Your task to perform on an android device: Open battery settings Image 0: 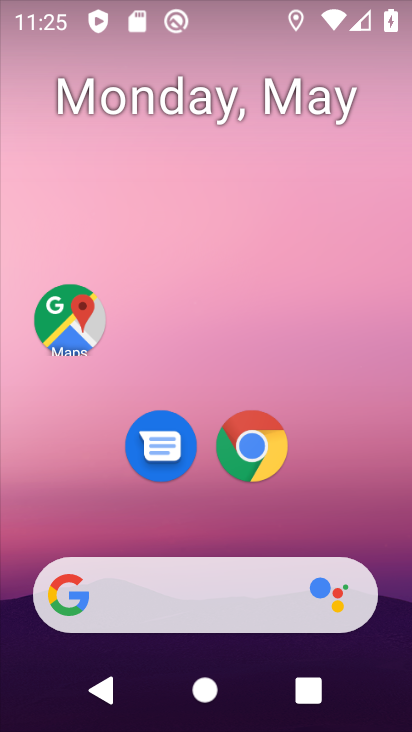
Step 0: drag from (295, 493) to (147, 46)
Your task to perform on an android device: Open battery settings Image 1: 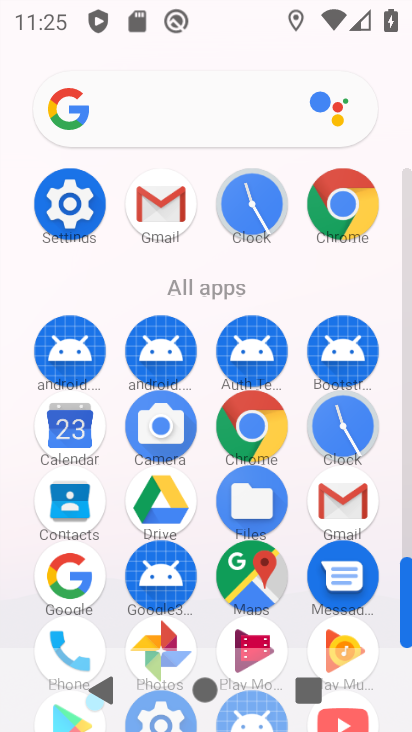
Step 1: click (63, 206)
Your task to perform on an android device: Open battery settings Image 2: 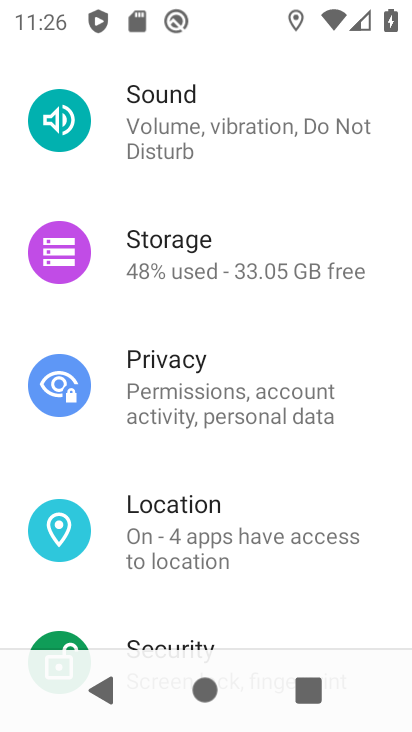
Step 2: drag from (206, 193) to (399, 586)
Your task to perform on an android device: Open battery settings Image 3: 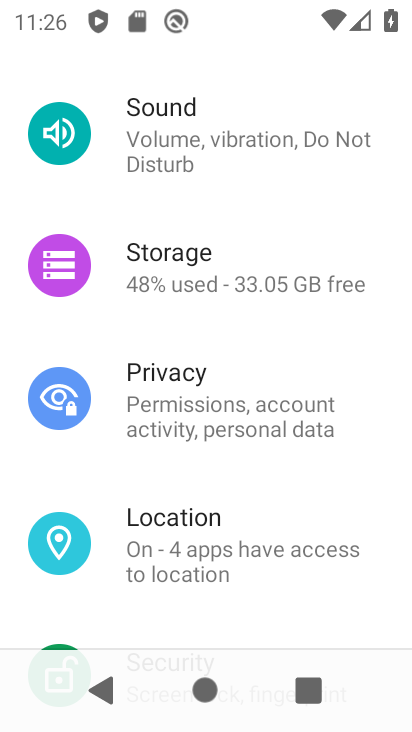
Step 3: drag from (193, 199) to (373, 705)
Your task to perform on an android device: Open battery settings Image 4: 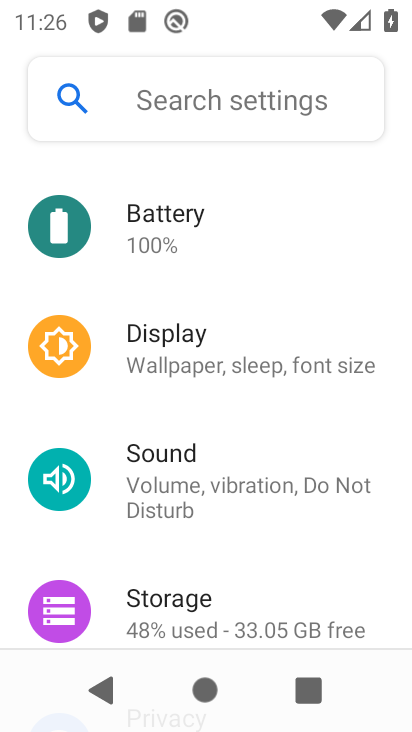
Step 4: click (149, 225)
Your task to perform on an android device: Open battery settings Image 5: 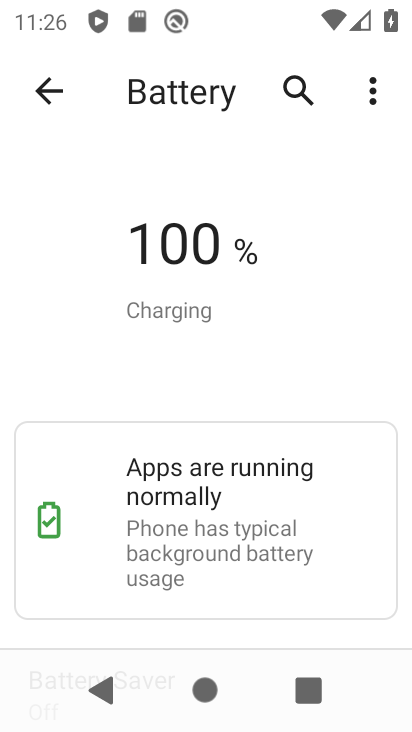
Step 5: task complete